Your task to perform on an android device: Open Google Chrome and open the bookmarks view Image 0: 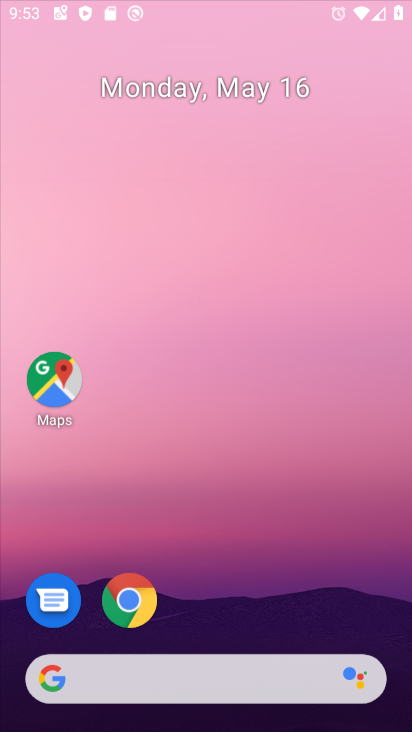
Step 0: click (307, 171)
Your task to perform on an android device: Open Google Chrome and open the bookmarks view Image 1: 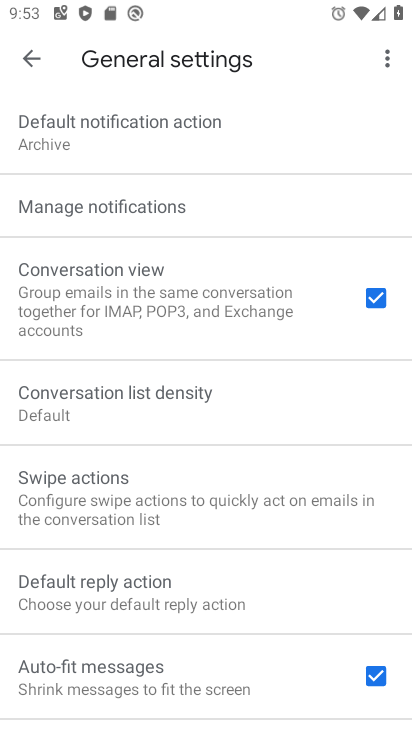
Step 1: press home button
Your task to perform on an android device: Open Google Chrome and open the bookmarks view Image 2: 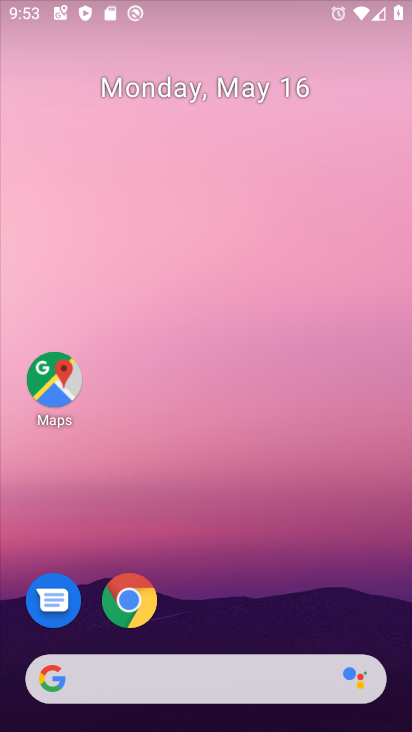
Step 2: drag from (214, 597) to (341, 182)
Your task to perform on an android device: Open Google Chrome and open the bookmarks view Image 3: 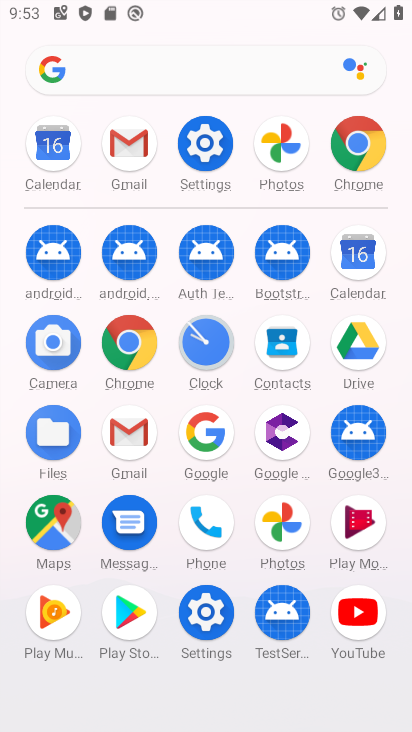
Step 3: click (131, 354)
Your task to perform on an android device: Open Google Chrome and open the bookmarks view Image 4: 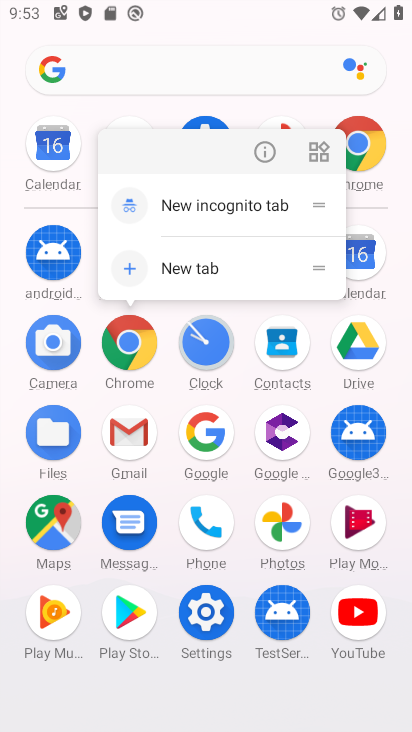
Step 4: click (272, 145)
Your task to perform on an android device: Open Google Chrome and open the bookmarks view Image 5: 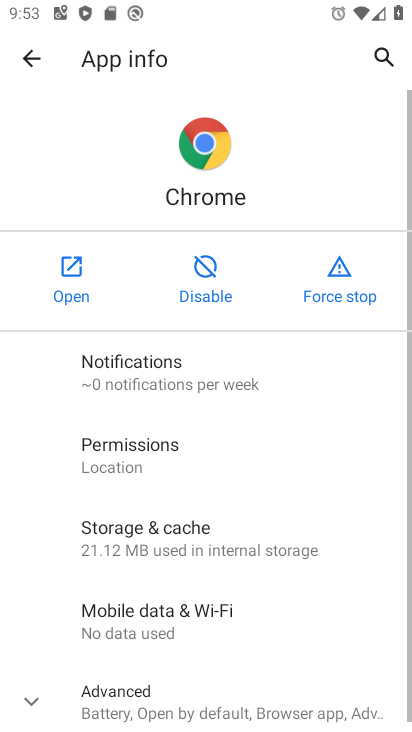
Step 5: click (70, 264)
Your task to perform on an android device: Open Google Chrome and open the bookmarks view Image 6: 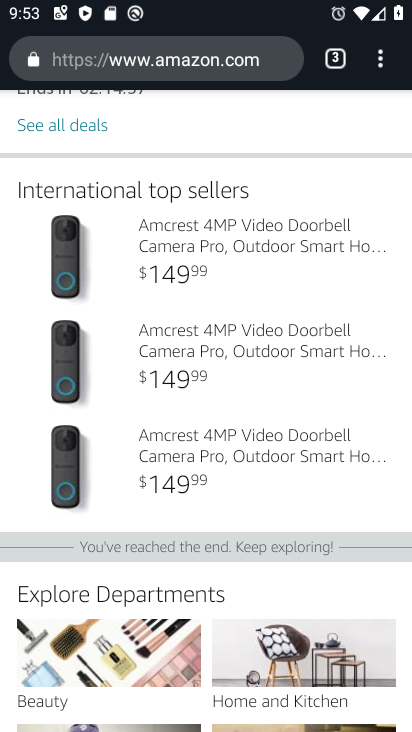
Step 6: drag from (257, 199) to (269, 721)
Your task to perform on an android device: Open Google Chrome and open the bookmarks view Image 7: 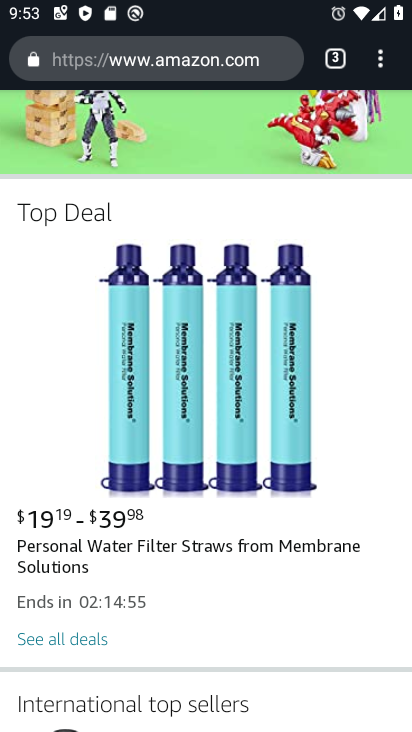
Step 7: click (376, 61)
Your task to perform on an android device: Open Google Chrome and open the bookmarks view Image 8: 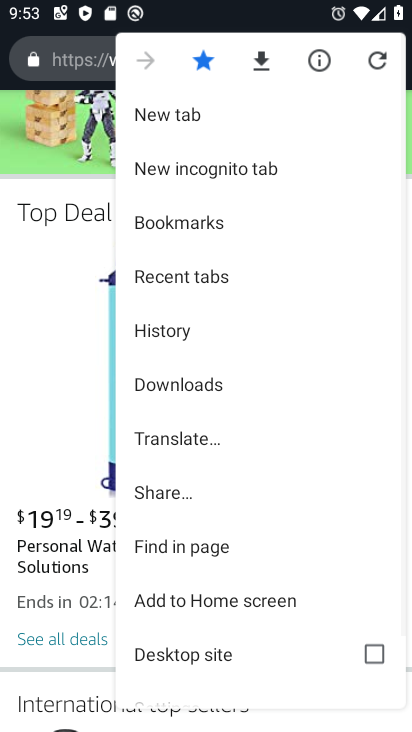
Step 8: drag from (254, 595) to (319, 156)
Your task to perform on an android device: Open Google Chrome and open the bookmarks view Image 9: 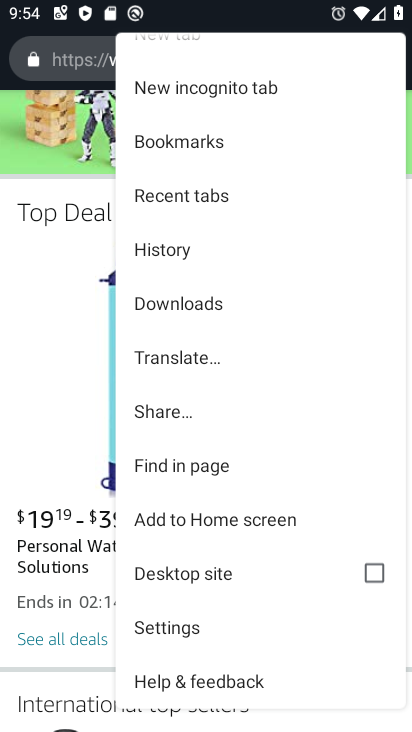
Step 9: click (242, 145)
Your task to perform on an android device: Open Google Chrome and open the bookmarks view Image 10: 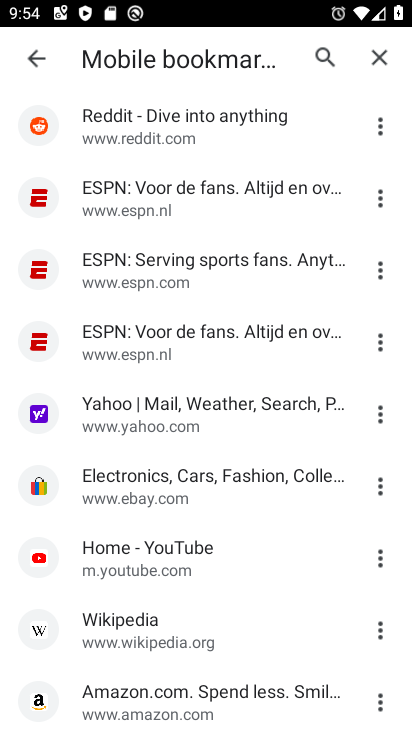
Step 10: task complete